Your task to perform on an android device: toggle notifications settings in the gmail app Image 0: 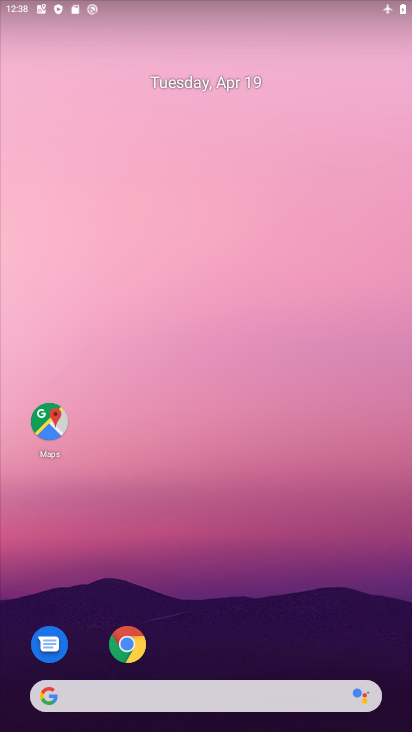
Step 0: drag from (302, 625) to (239, 338)
Your task to perform on an android device: toggle notifications settings in the gmail app Image 1: 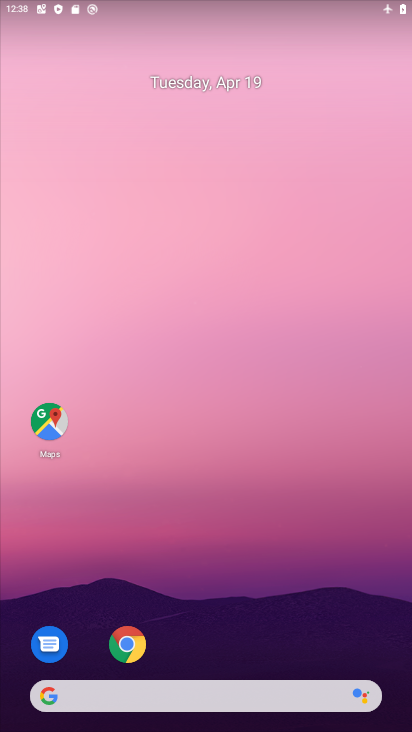
Step 1: drag from (243, 594) to (194, 147)
Your task to perform on an android device: toggle notifications settings in the gmail app Image 2: 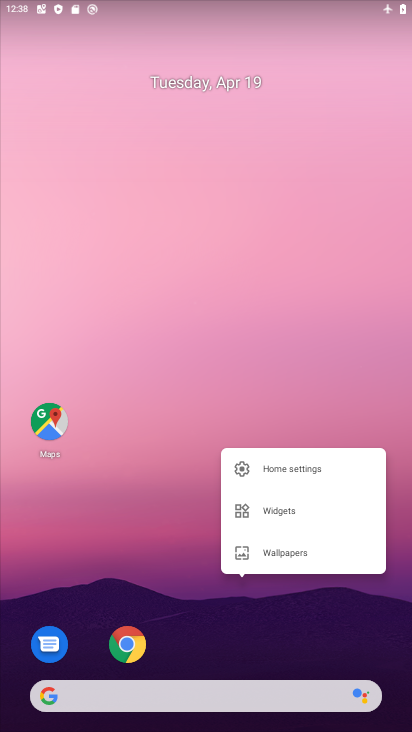
Step 2: click (82, 503)
Your task to perform on an android device: toggle notifications settings in the gmail app Image 3: 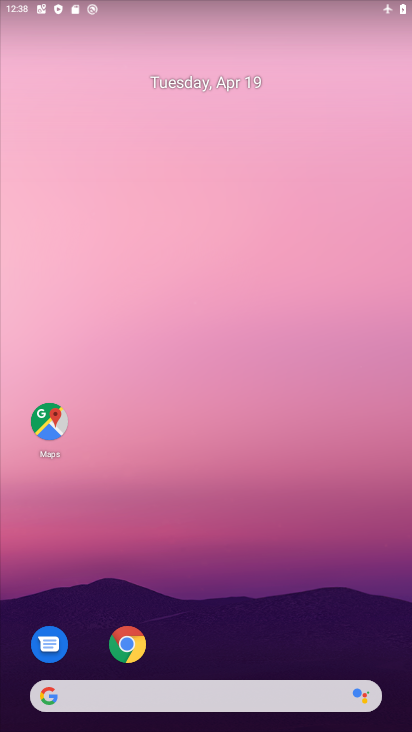
Step 3: drag from (154, 523) to (223, 93)
Your task to perform on an android device: toggle notifications settings in the gmail app Image 4: 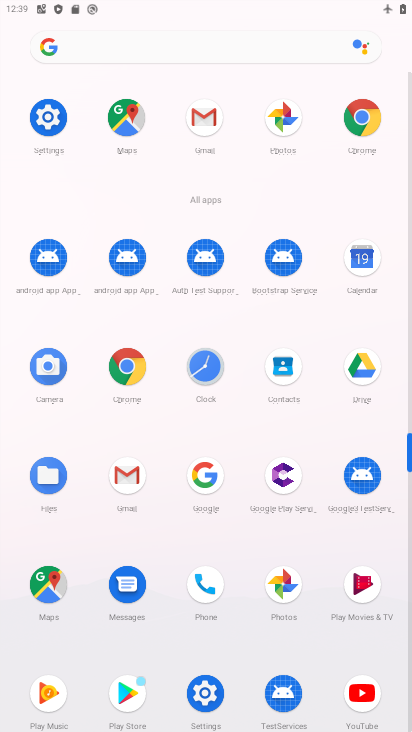
Step 4: click (222, 710)
Your task to perform on an android device: toggle notifications settings in the gmail app Image 5: 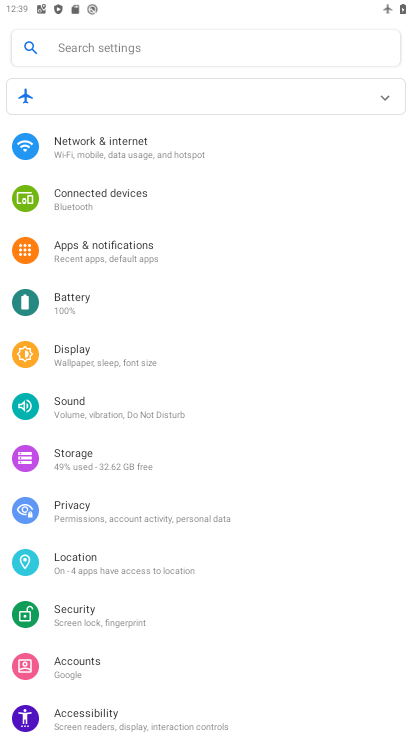
Step 5: click (133, 264)
Your task to perform on an android device: toggle notifications settings in the gmail app Image 6: 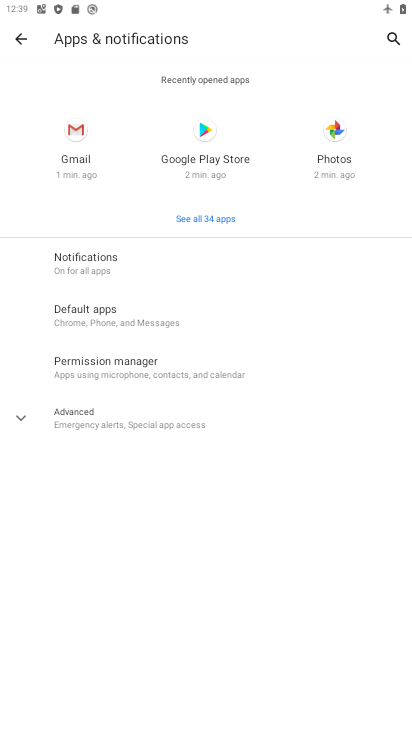
Step 6: click (133, 264)
Your task to perform on an android device: toggle notifications settings in the gmail app Image 7: 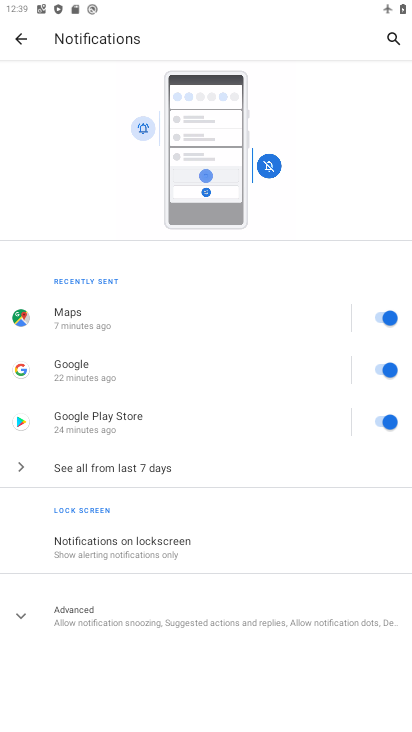
Step 7: press home button
Your task to perform on an android device: toggle notifications settings in the gmail app Image 8: 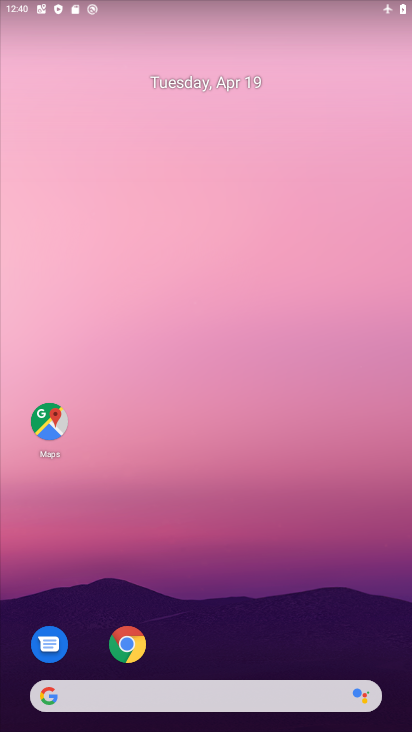
Step 8: drag from (169, 643) to (175, 168)
Your task to perform on an android device: toggle notifications settings in the gmail app Image 9: 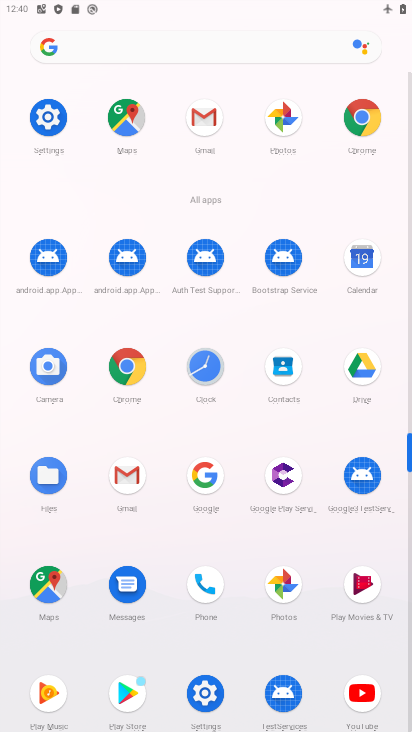
Step 9: click (206, 130)
Your task to perform on an android device: toggle notifications settings in the gmail app Image 10: 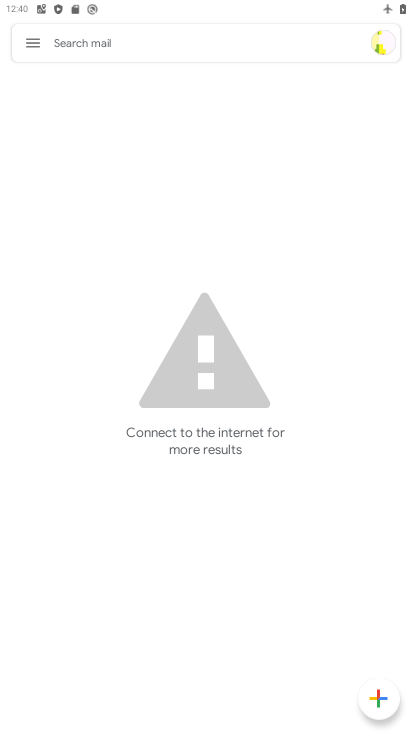
Step 10: task complete